Your task to perform on an android device: What is the average speed of a car? Image 0: 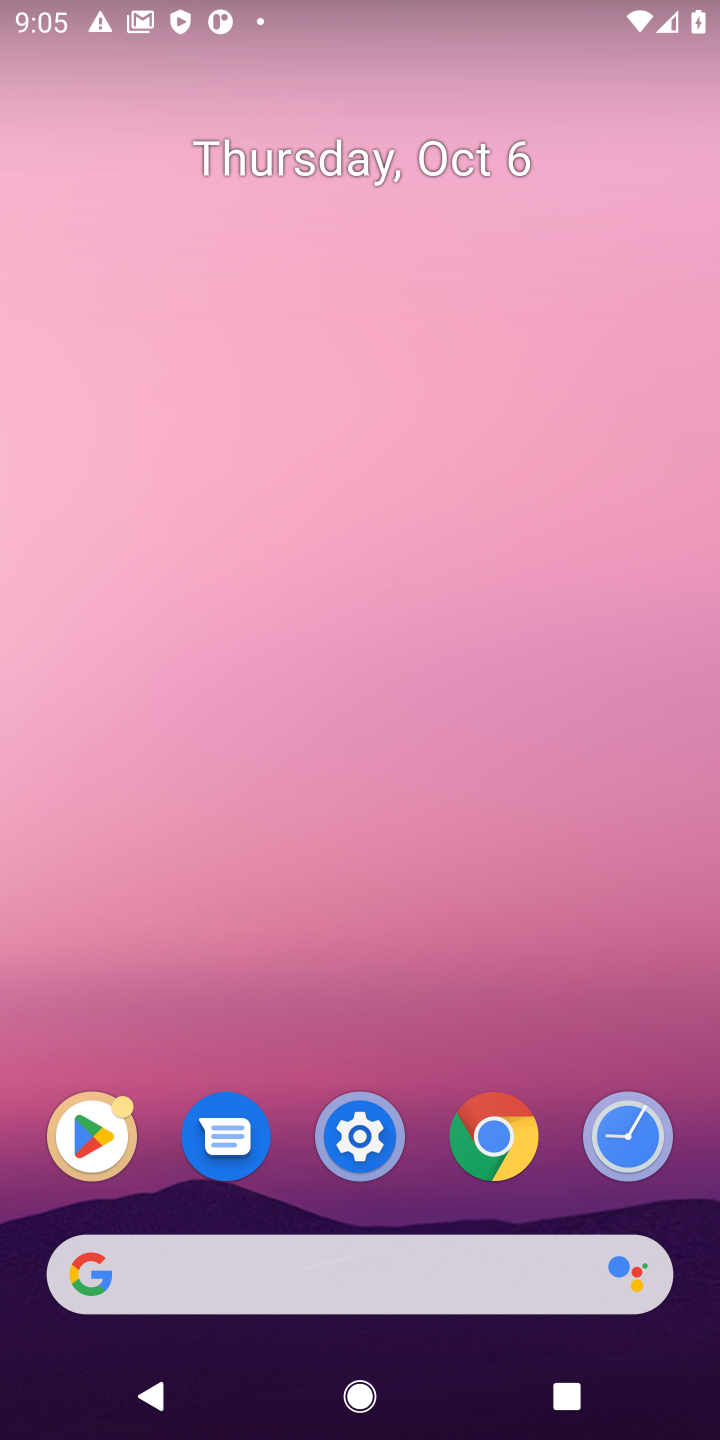
Step 0: click (92, 1275)
Your task to perform on an android device: What is the average speed of a car? Image 1: 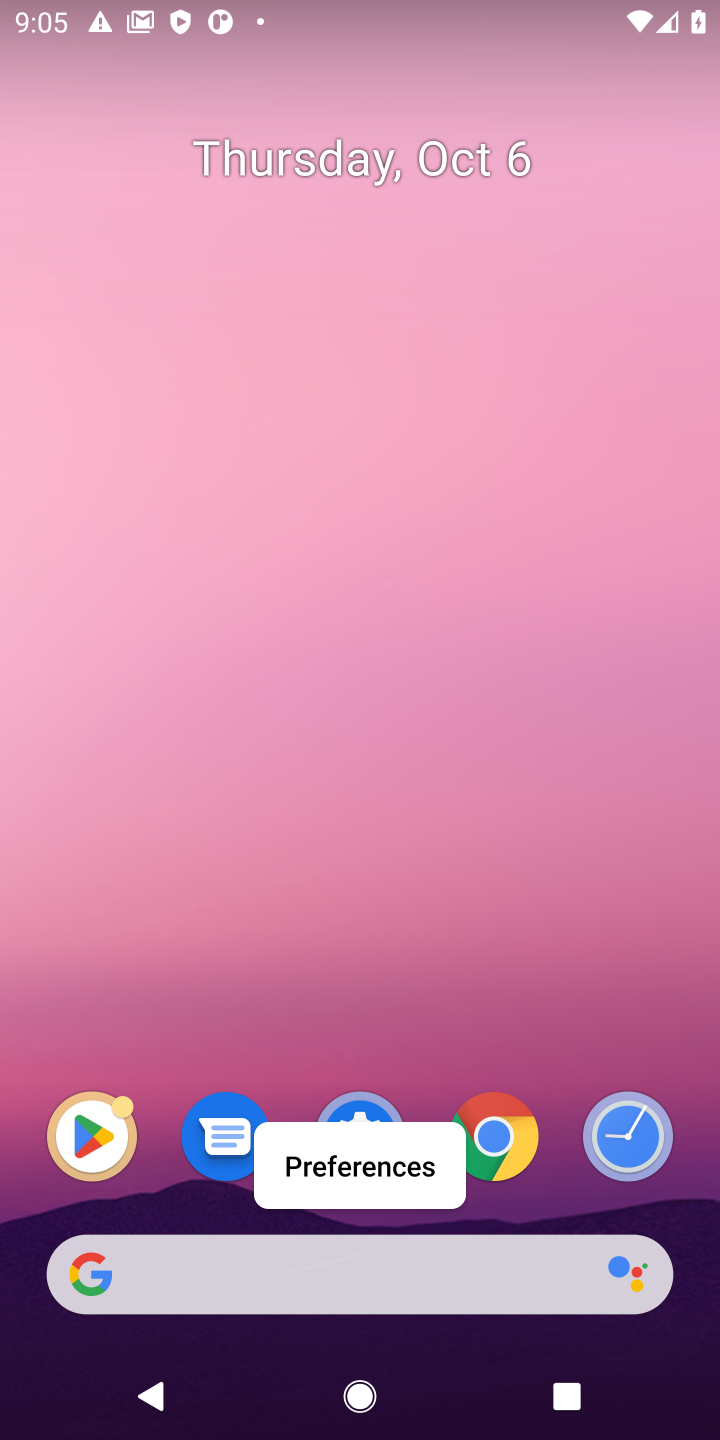
Step 1: click (95, 1266)
Your task to perform on an android device: What is the average speed of a car? Image 2: 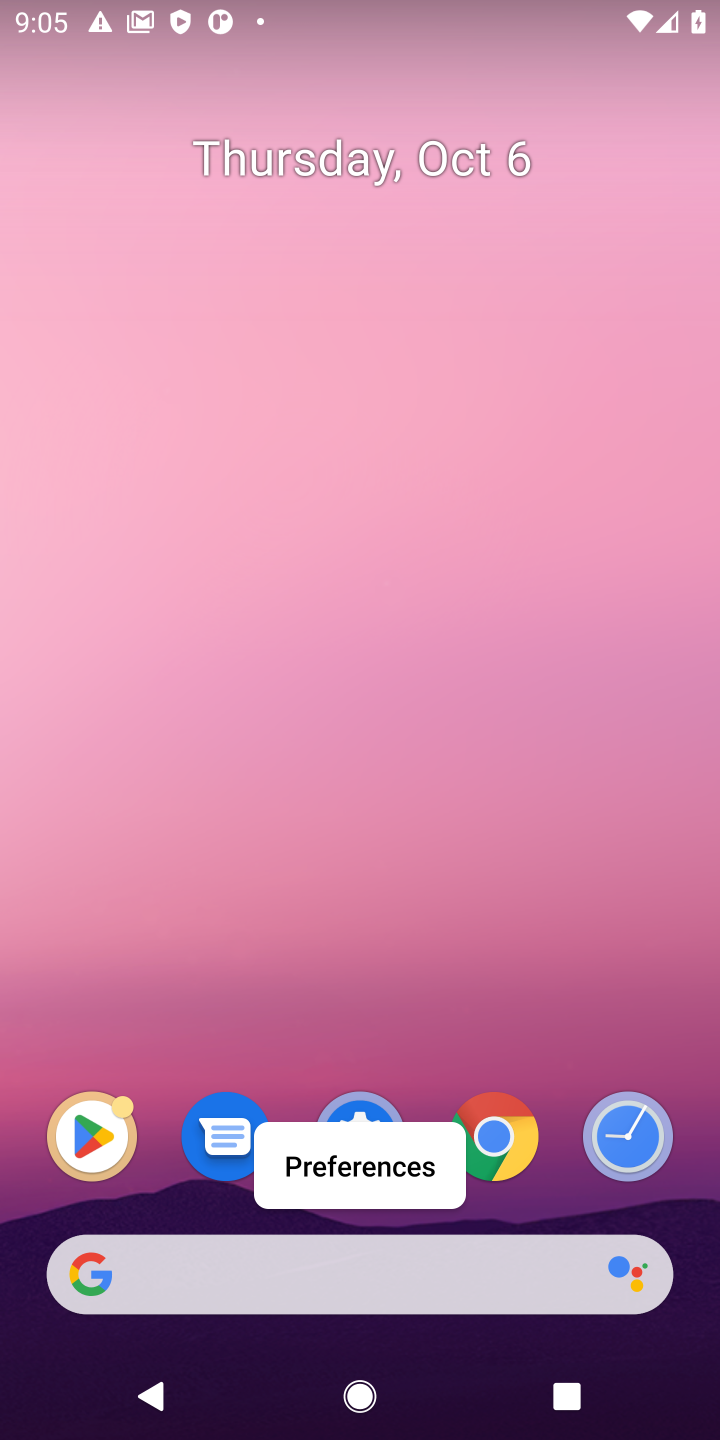
Step 2: click (75, 1272)
Your task to perform on an android device: What is the average speed of a car? Image 3: 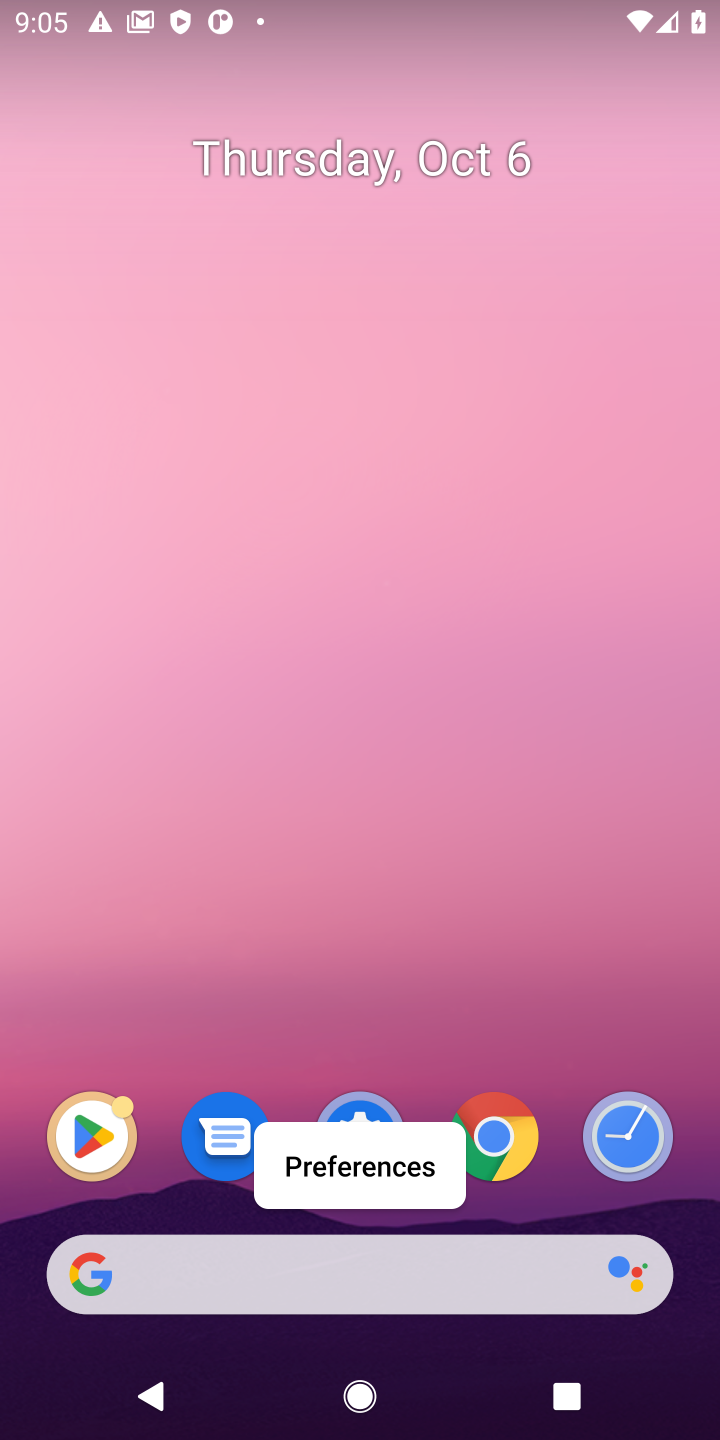
Step 3: click (90, 1288)
Your task to perform on an android device: What is the average speed of a car? Image 4: 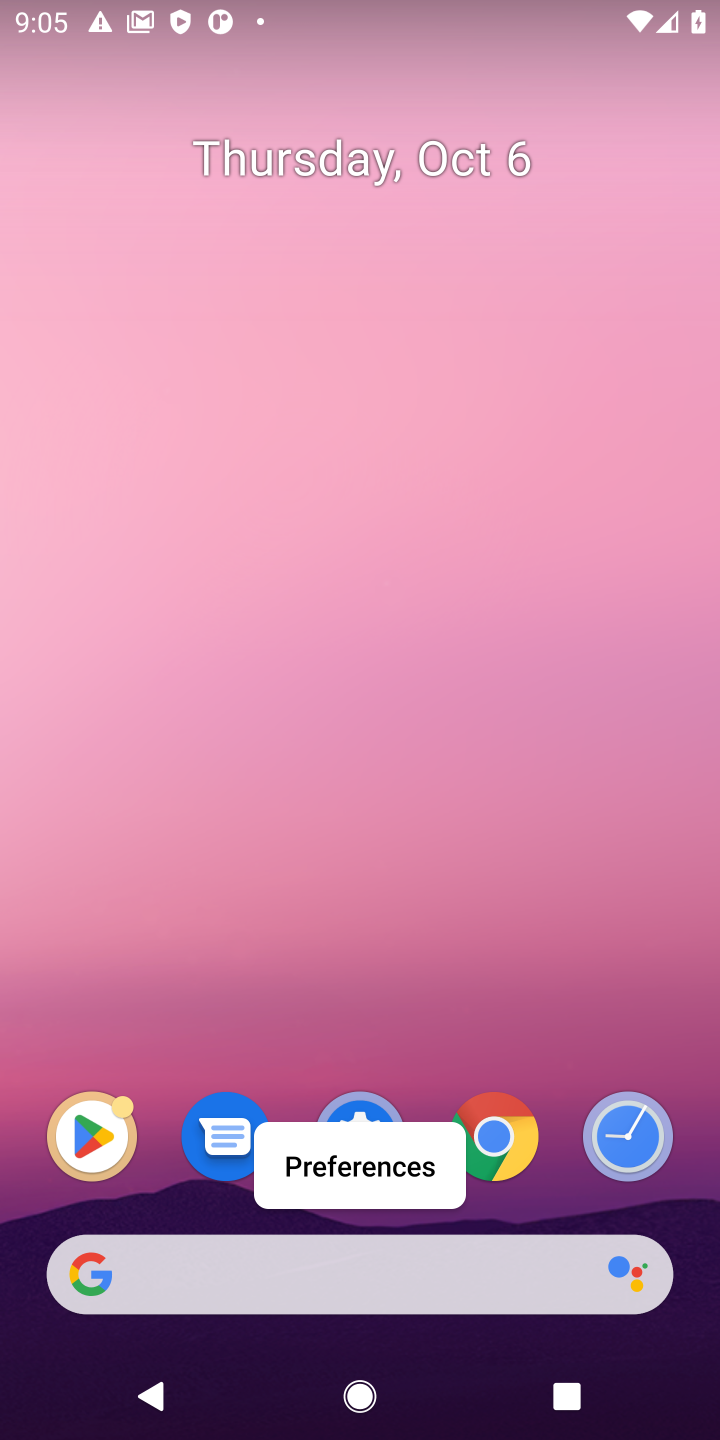
Step 4: click (90, 1288)
Your task to perform on an android device: What is the average speed of a car? Image 5: 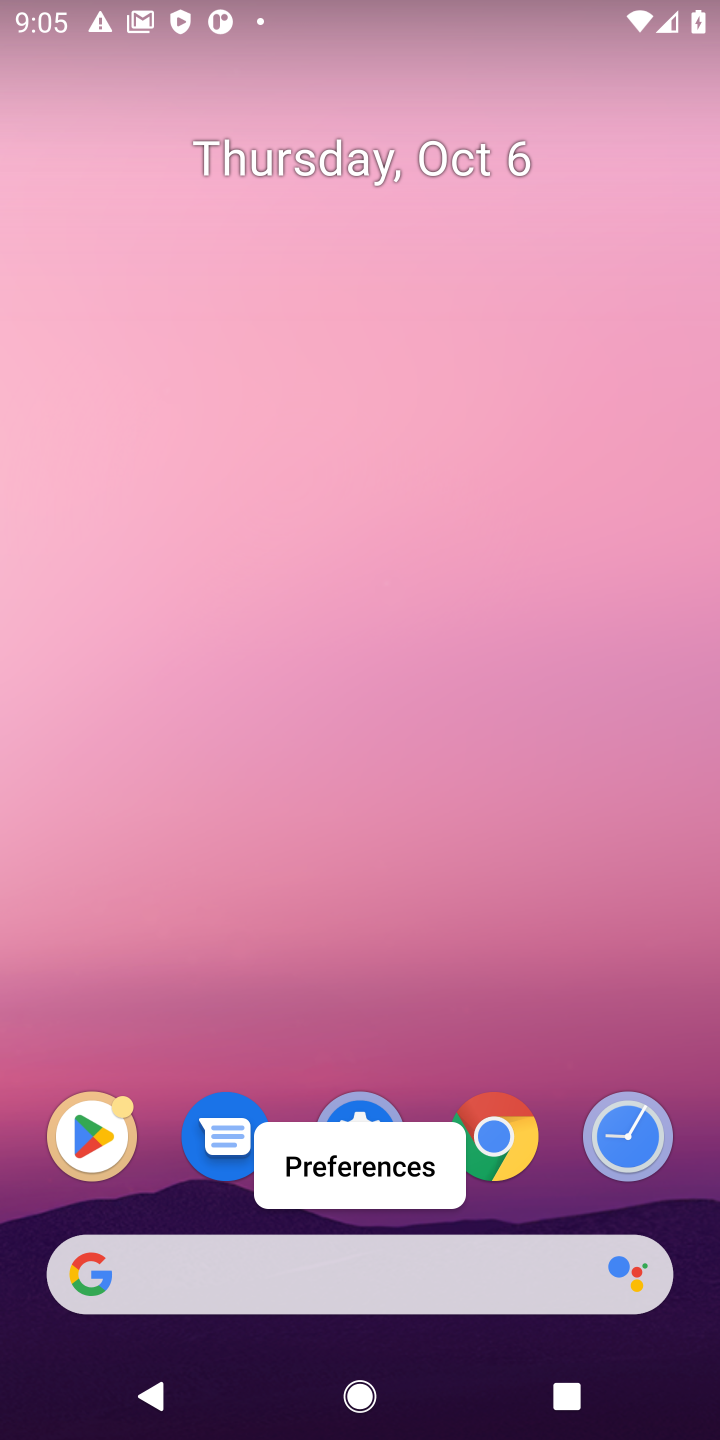
Step 5: click (90, 1288)
Your task to perform on an android device: What is the average speed of a car? Image 6: 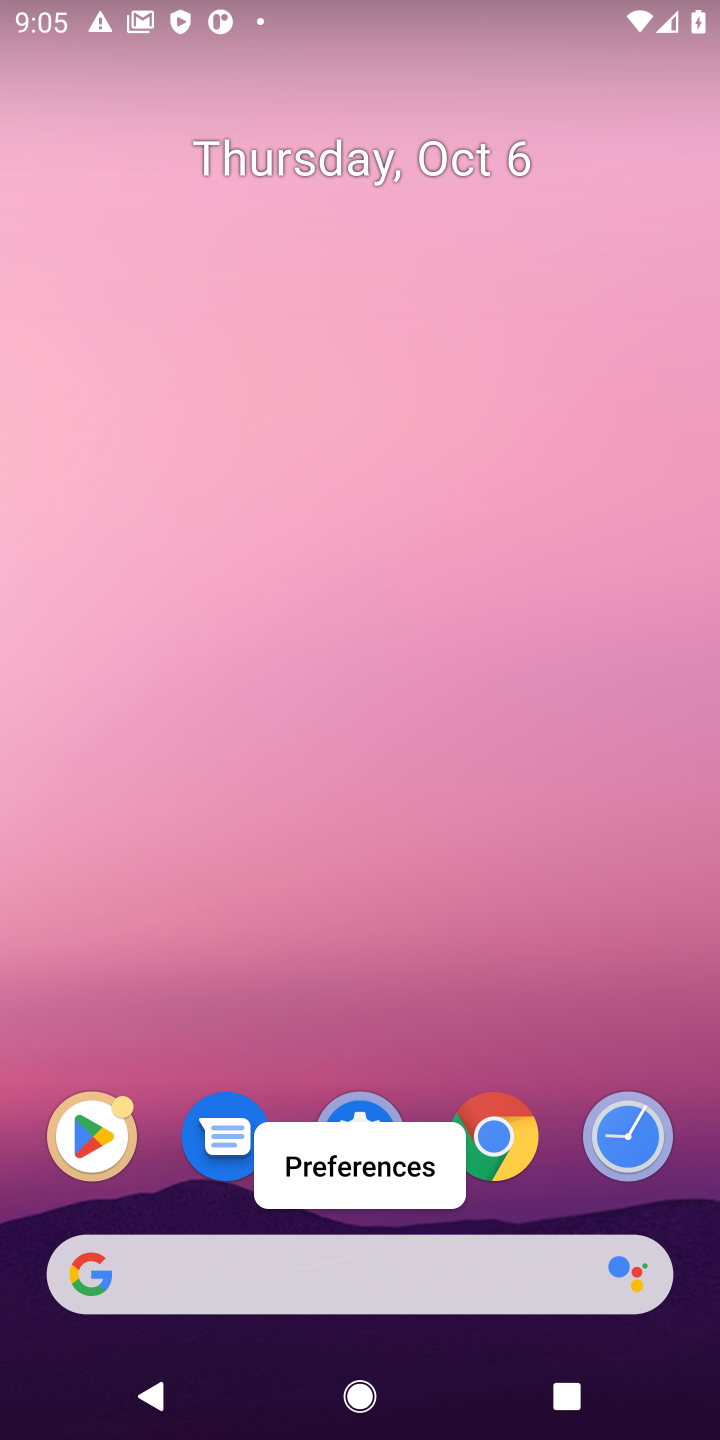
Step 6: click (101, 1269)
Your task to perform on an android device: What is the average speed of a car? Image 7: 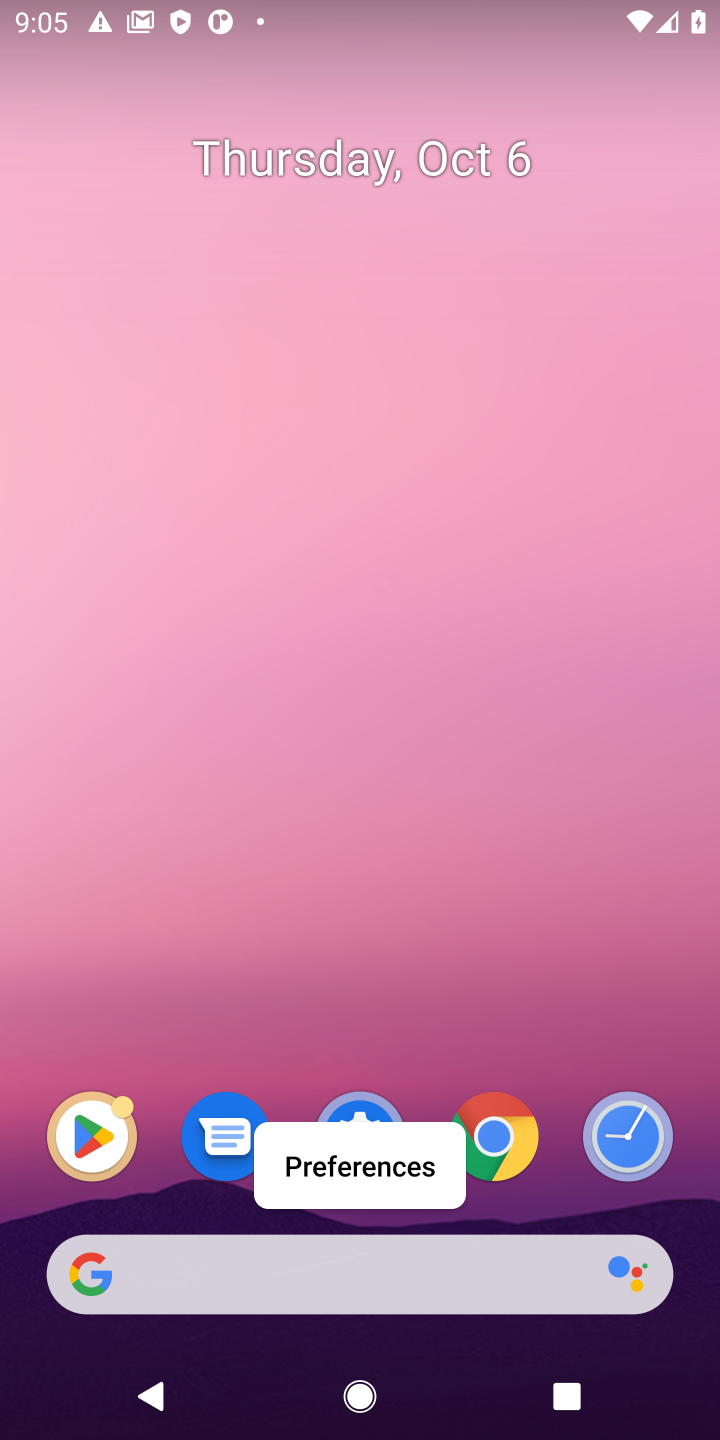
Step 7: click (70, 1275)
Your task to perform on an android device: What is the average speed of a car? Image 8: 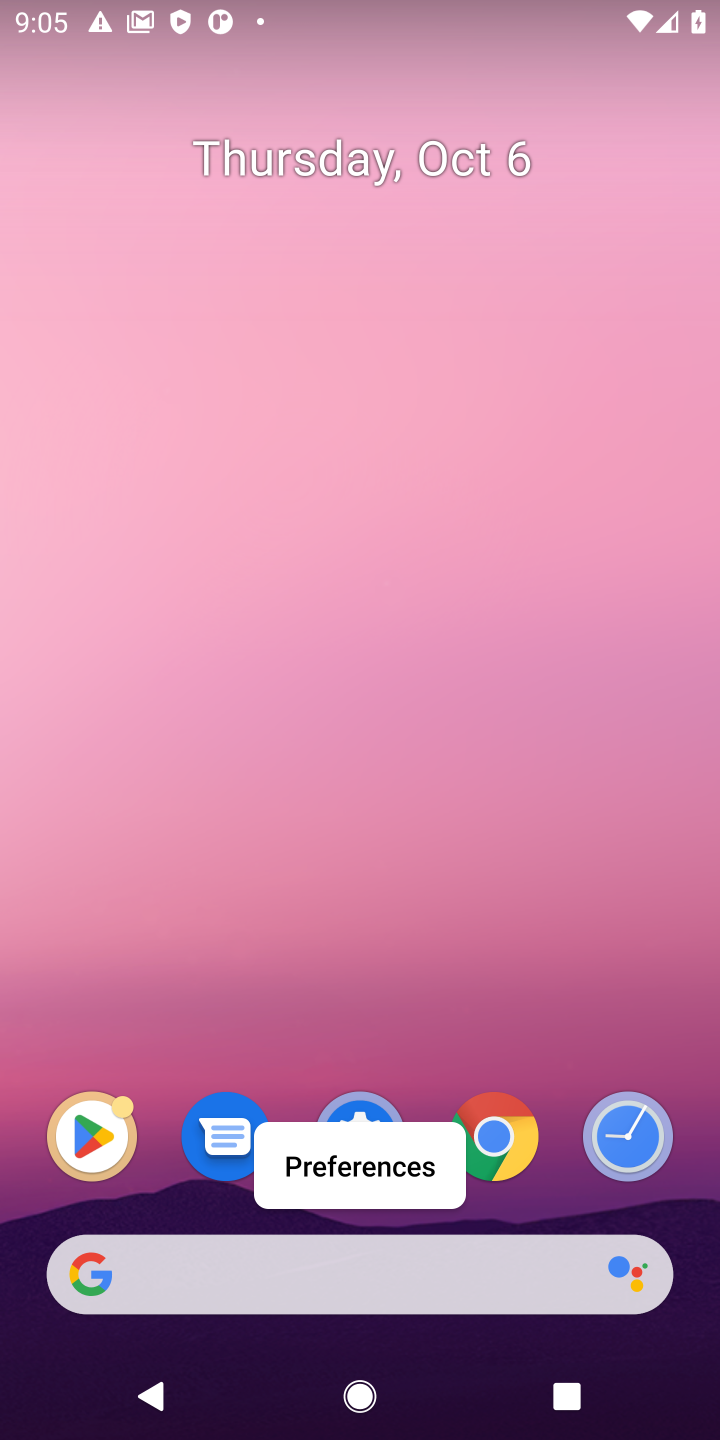
Step 8: click (87, 1276)
Your task to perform on an android device: What is the average speed of a car? Image 9: 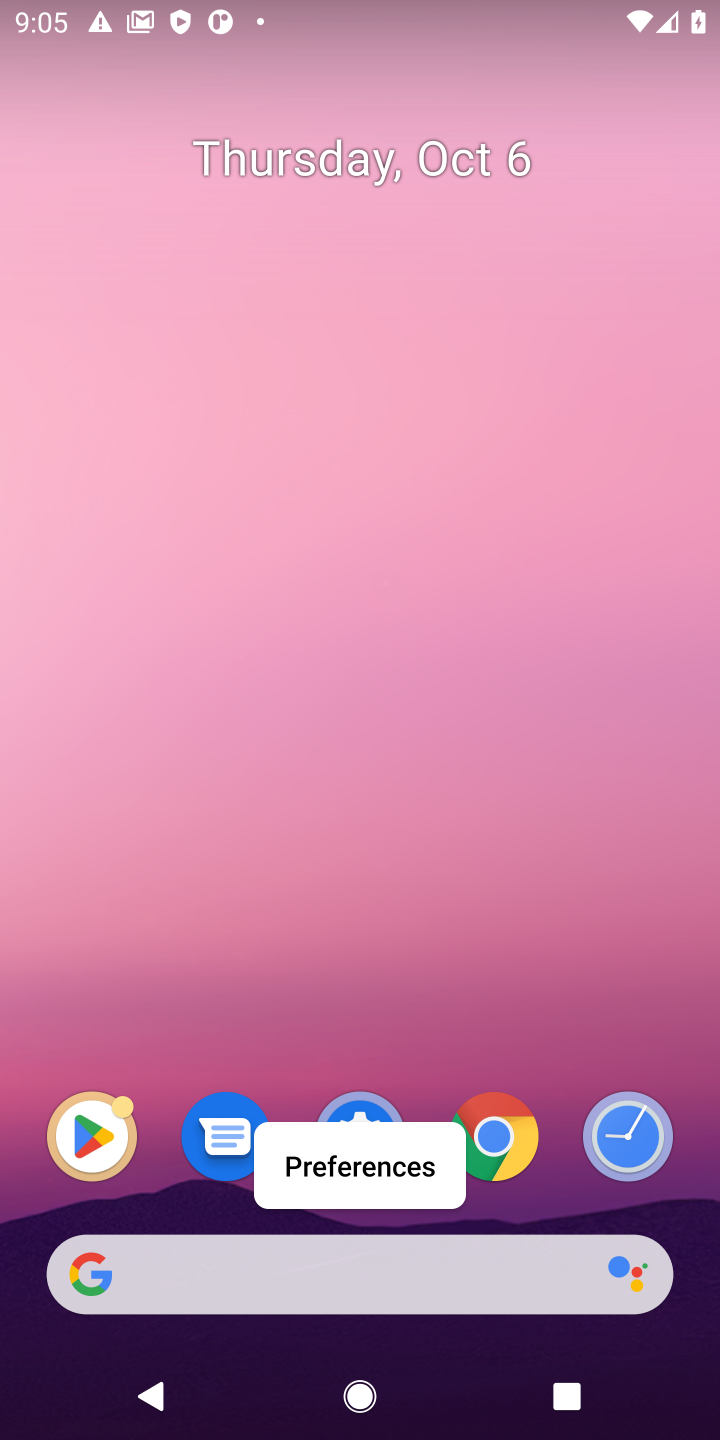
Step 9: click (546, 1283)
Your task to perform on an android device: What is the average speed of a car? Image 10: 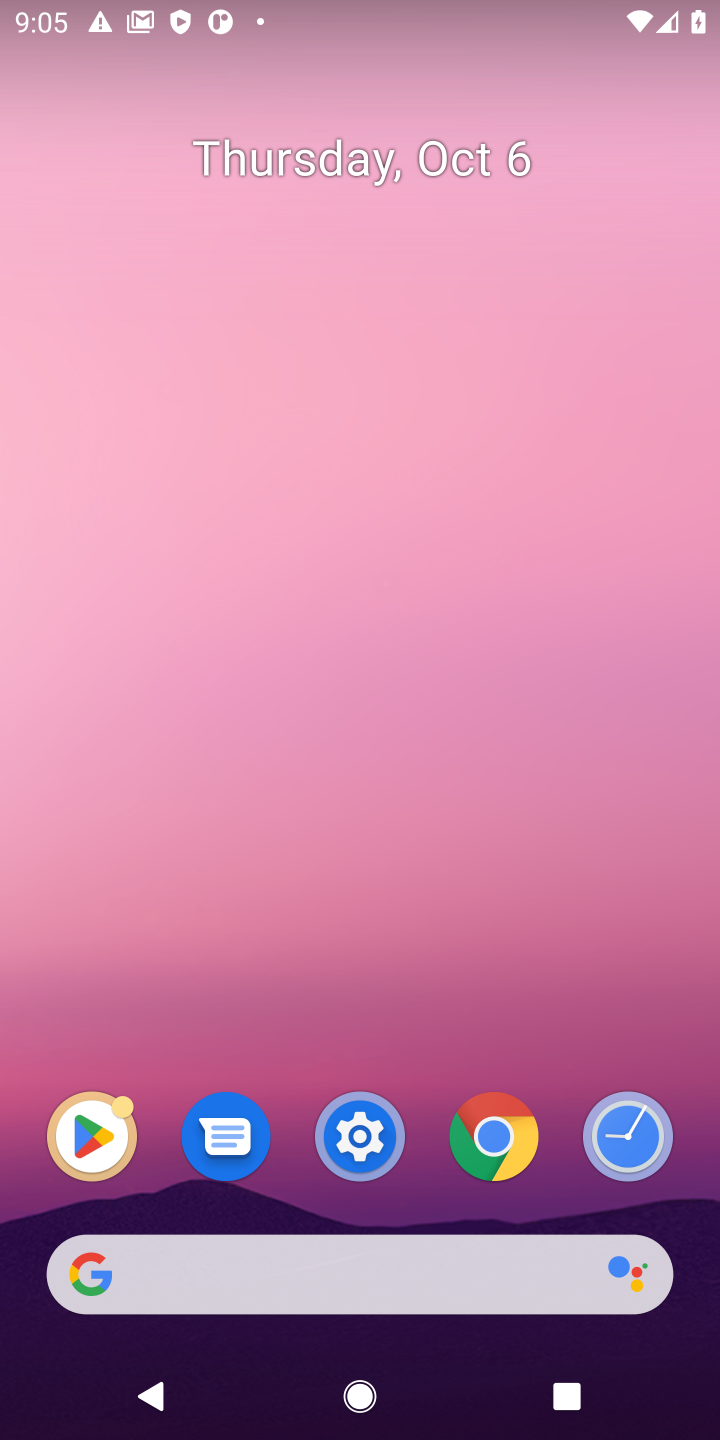
Step 10: press home button
Your task to perform on an android device: What is the average speed of a car? Image 11: 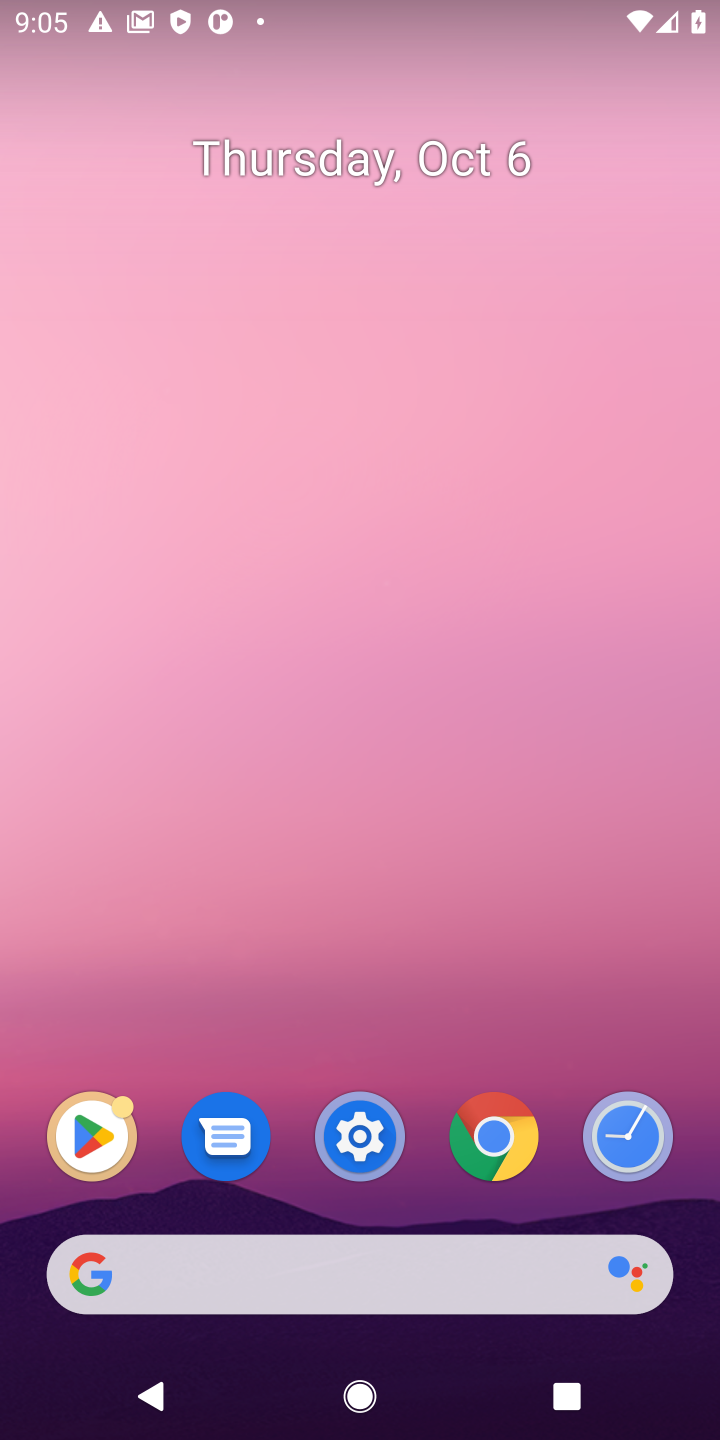
Step 11: drag from (332, 399) to (363, 215)
Your task to perform on an android device: What is the average speed of a car? Image 12: 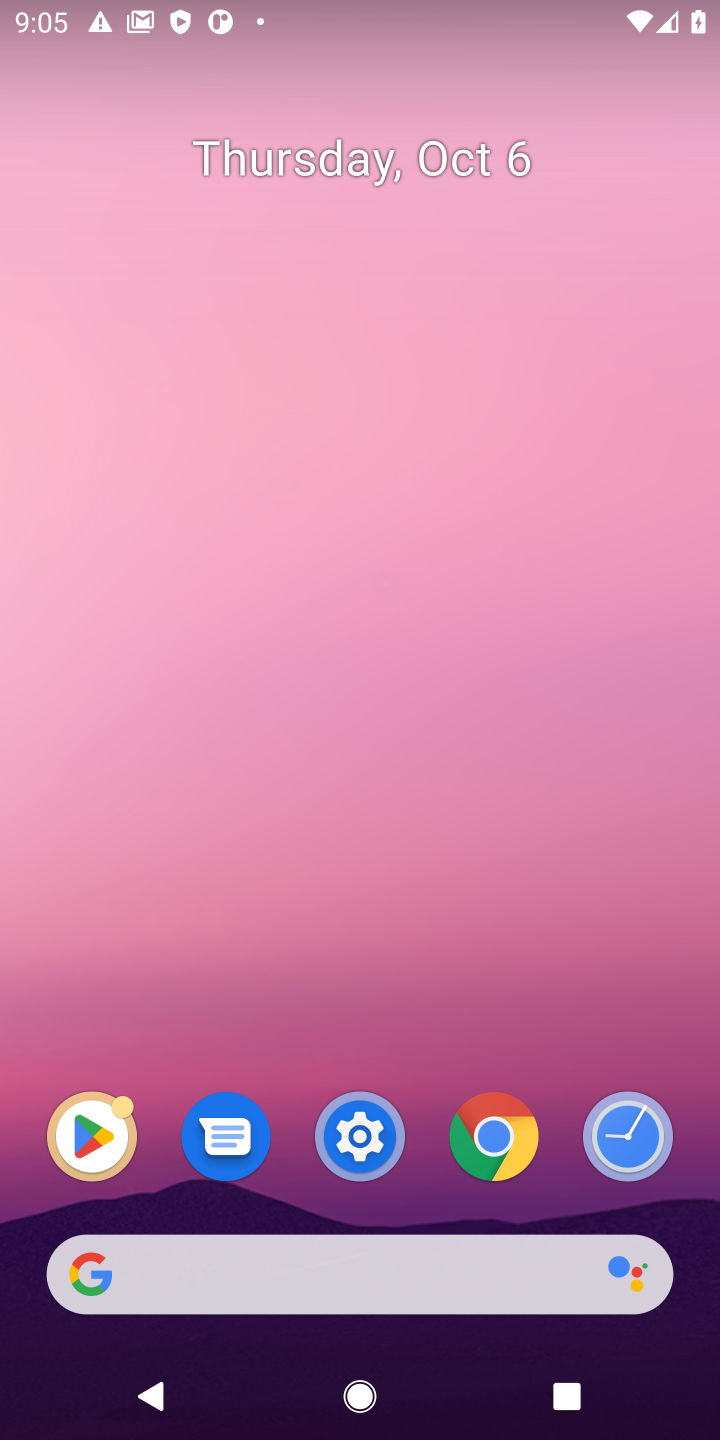
Step 12: click (91, 1270)
Your task to perform on an android device: What is the average speed of a car? Image 13: 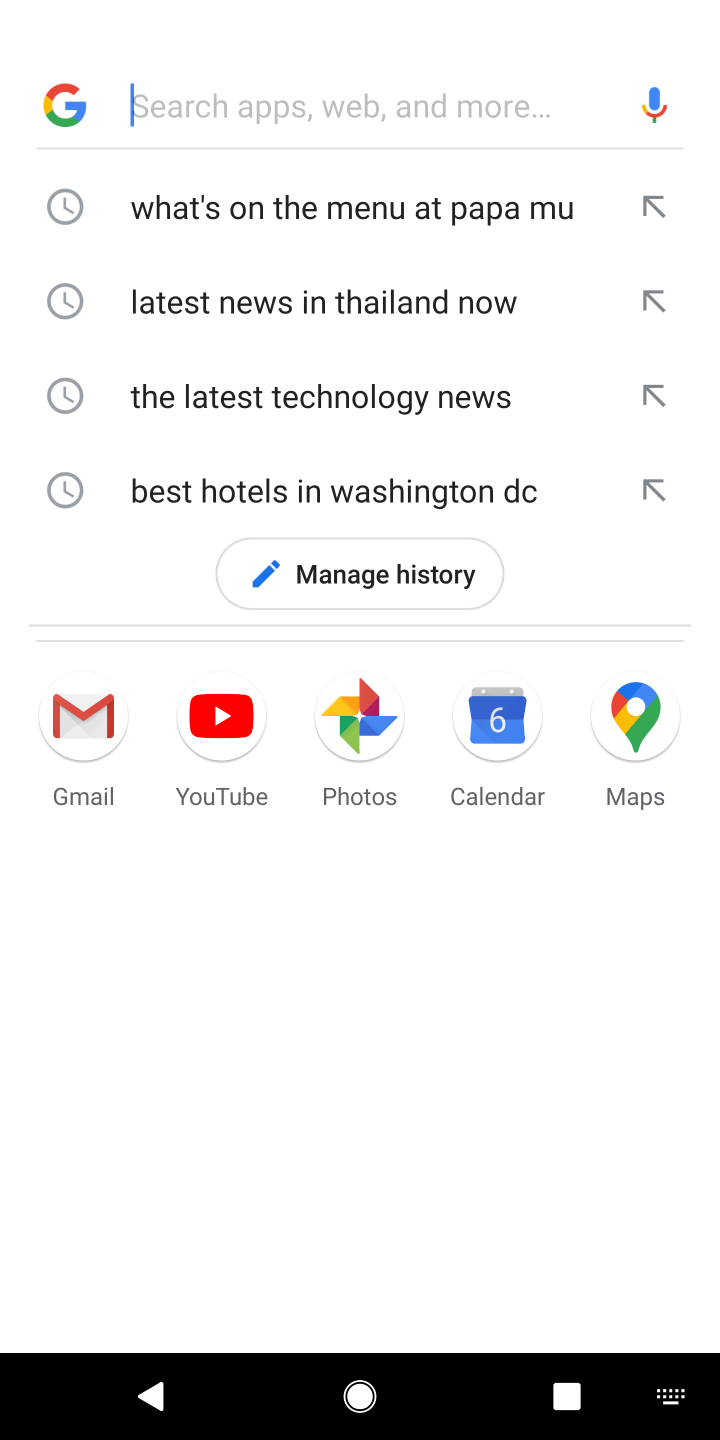
Step 13: type "What is the average speed of a car?"
Your task to perform on an android device: What is the average speed of a car? Image 14: 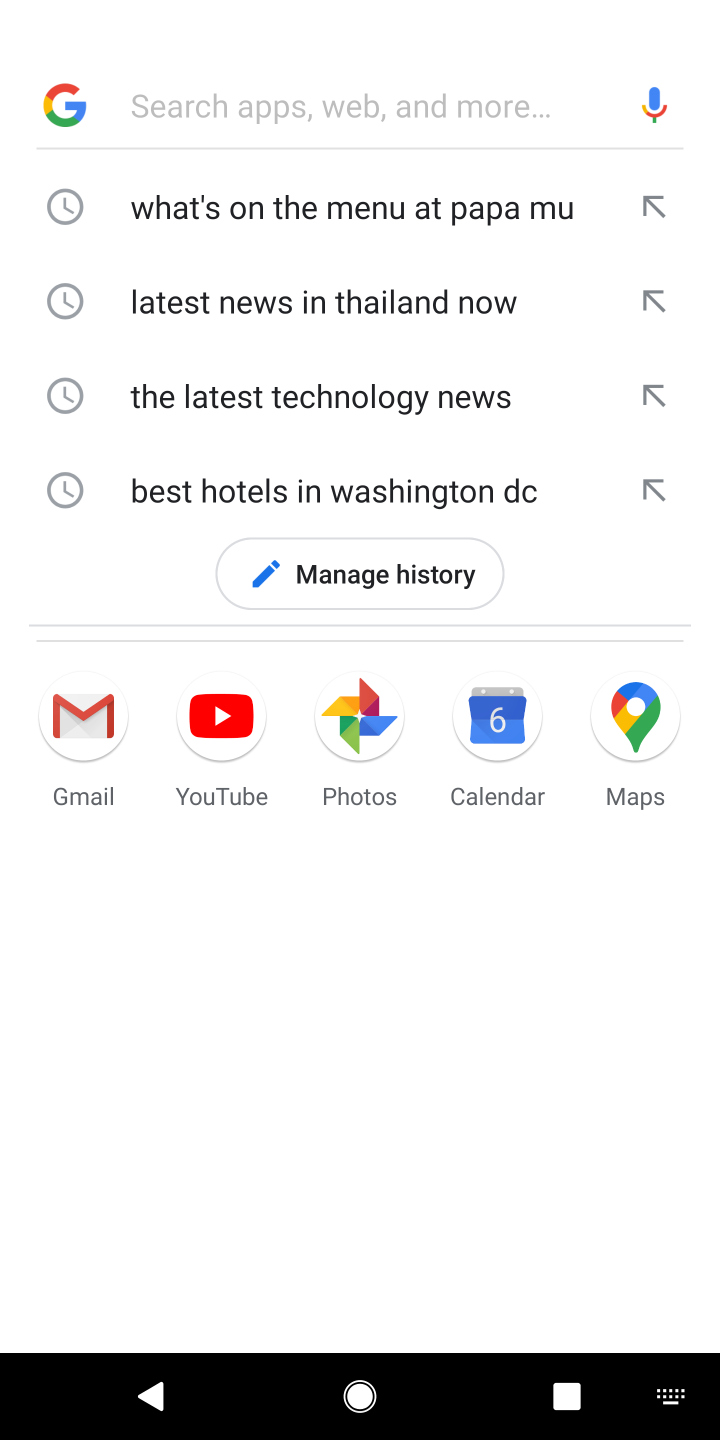
Step 14: click (271, 91)
Your task to perform on an android device: What is the average speed of a car? Image 15: 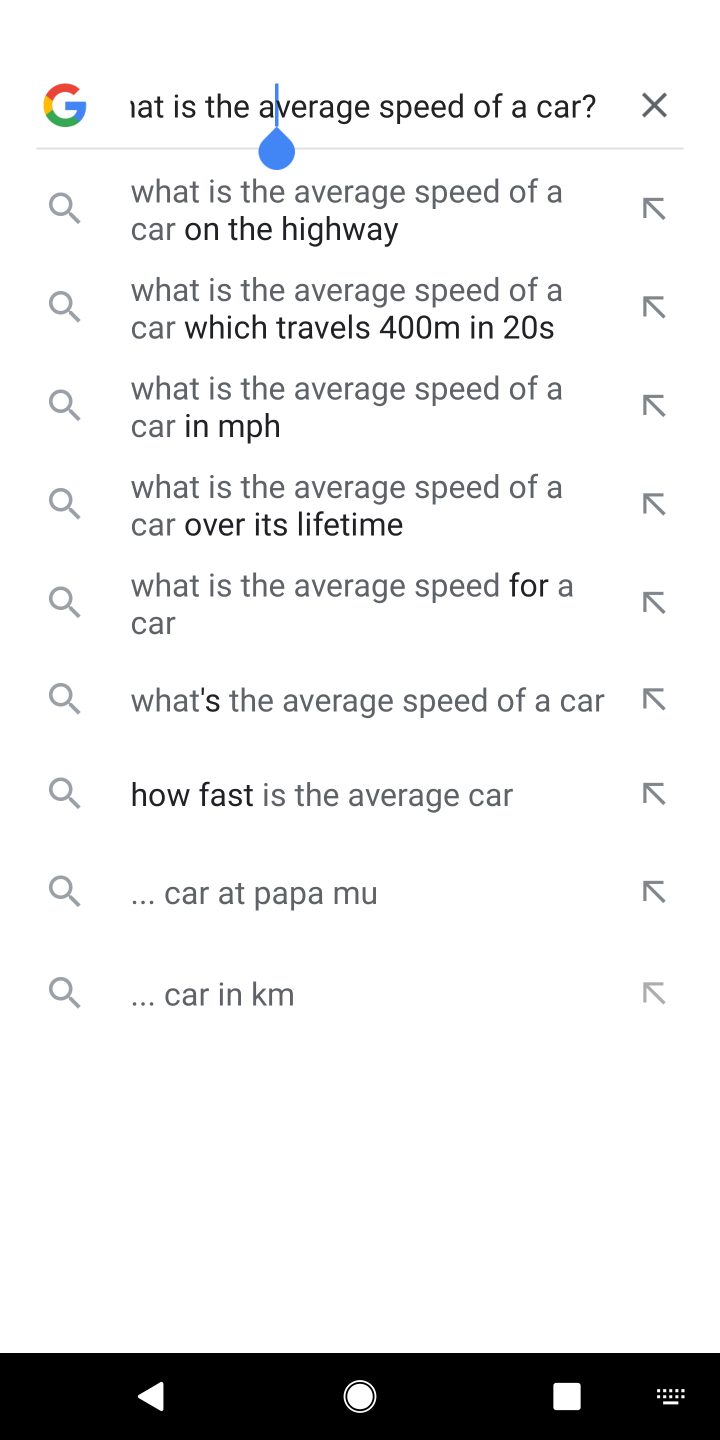
Step 15: press enter
Your task to perform on an android device: What is the average speed of a car? Image 16: 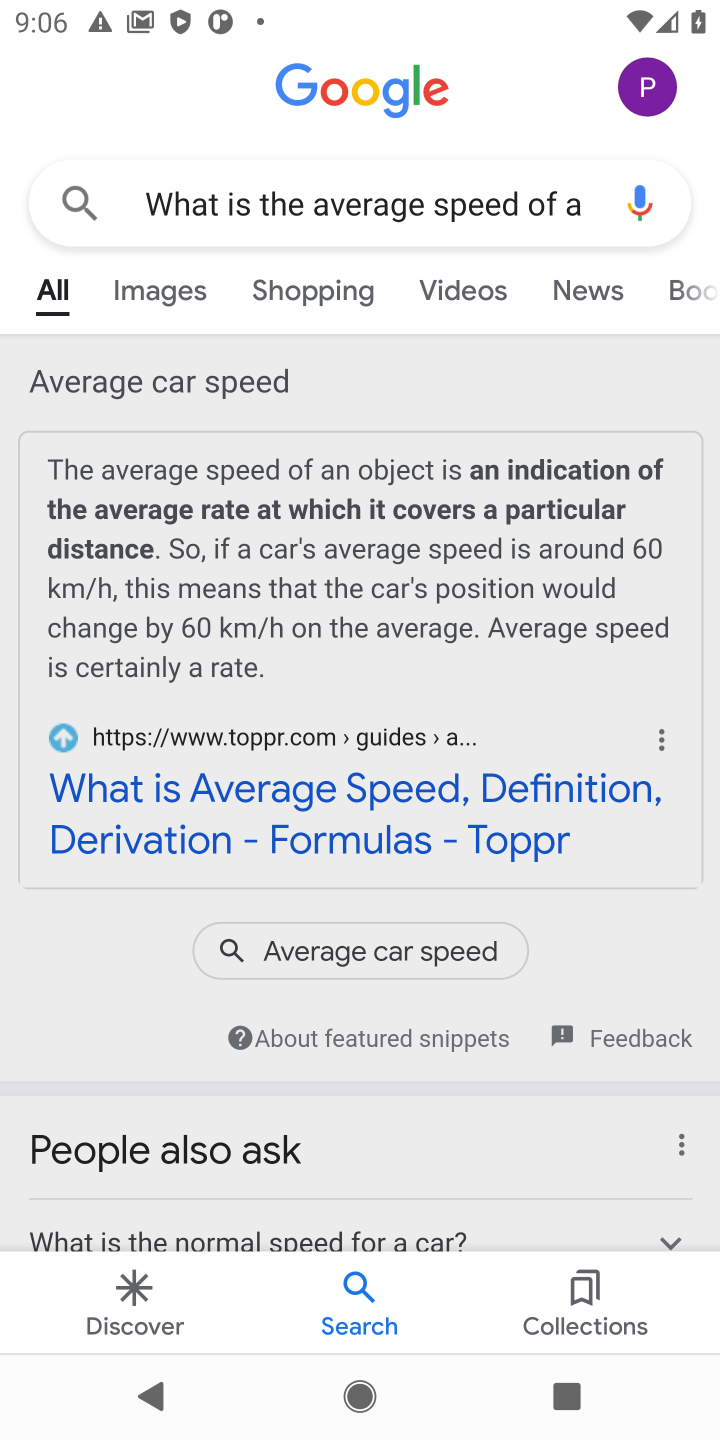
Step 16: task complete